Your task to perform on an android device: delete a single message in the gmail app Image 0: 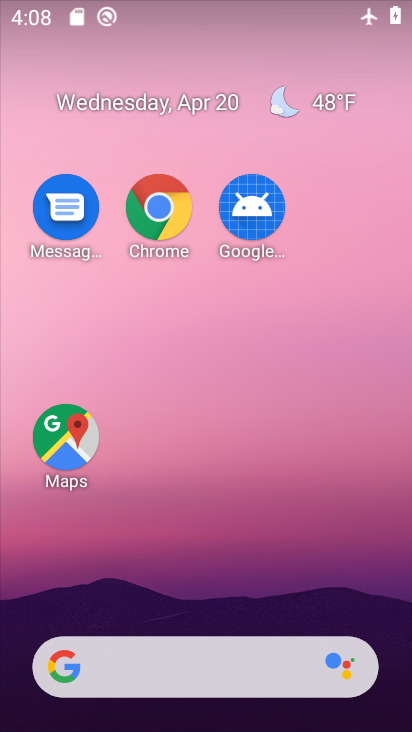
Step 0: drag from (197, 631) to (234, 421)
Your task to perform on an android device: delete a single message in the gmail app Image 1: 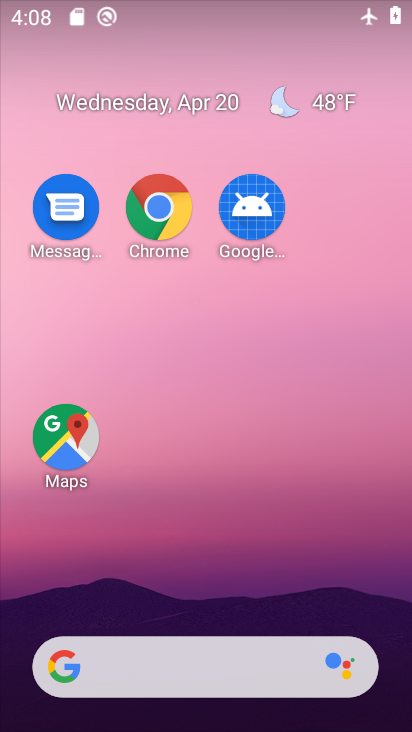
Step 1: drag from (248, 538) to (339, 128)
Your task to perform on an android device: delete a single message in the gmail app Image 2: 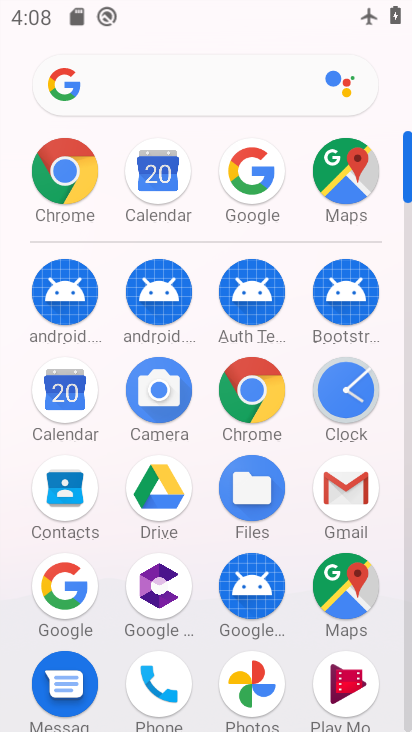
Step 2: click (347, 475)
Your task to perform on an android device: delete a single message in the gmail app Image 3: 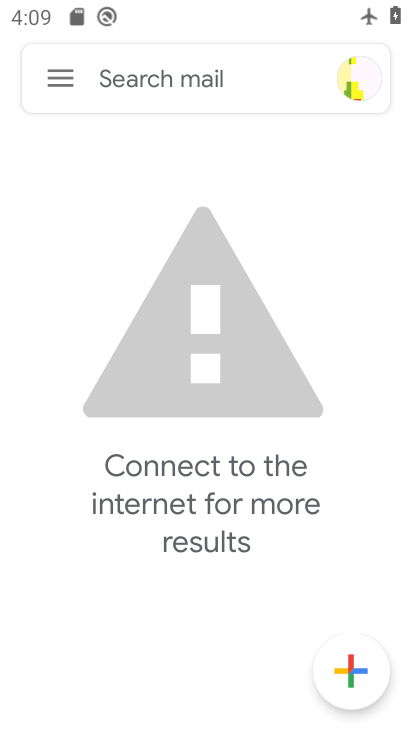
Step 3: task complete